Your task to perform on an android device: Open Google Image 0: 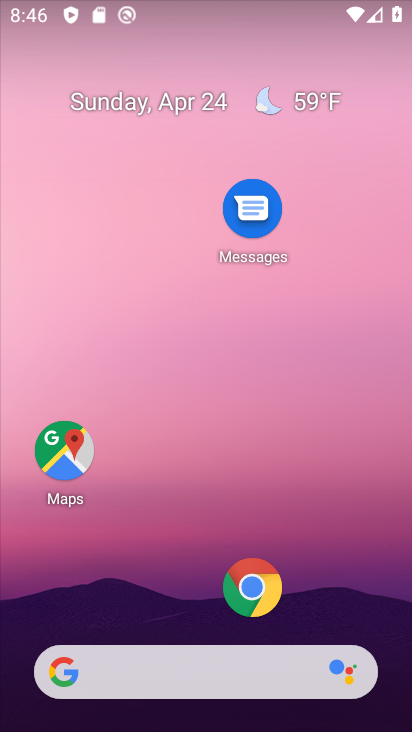
Step 0: click (76, 665)
Your task to perform on an android device: Open Google Image 1: 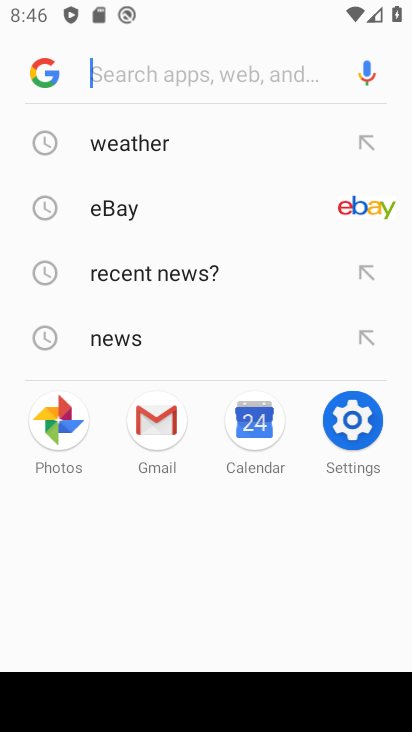
Step 1: click (51, 66)
Your task to perform on an android device: Open Google Image 2: 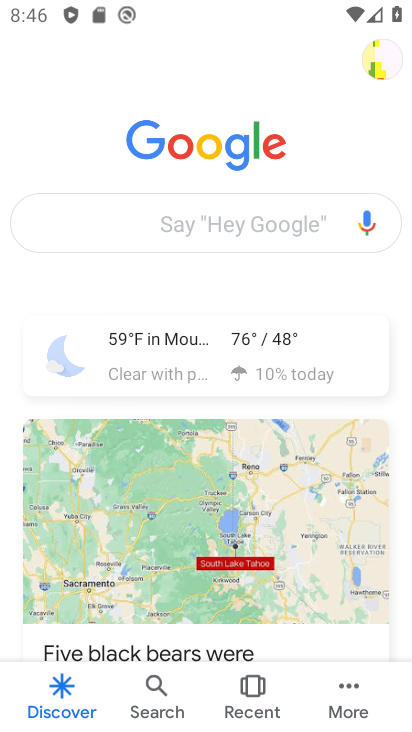
Step 2: task complete